Your task to perform on an android device: star an email in the gmail app Image 0: 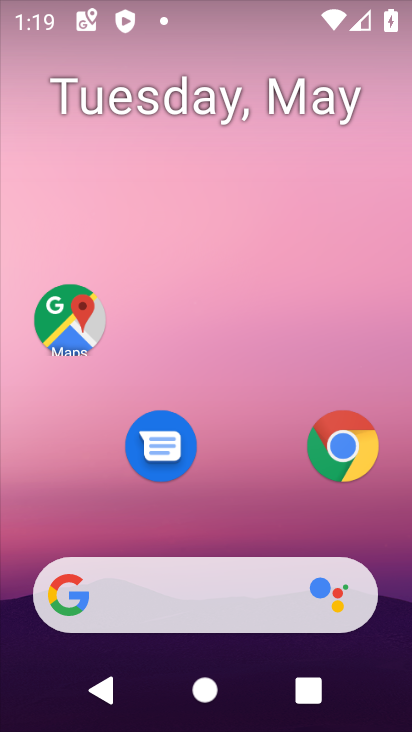
Step 0: drag from (246, 558) to (277, 26)
Your task to perform on an android device: star an email in the gmail app Image 1: 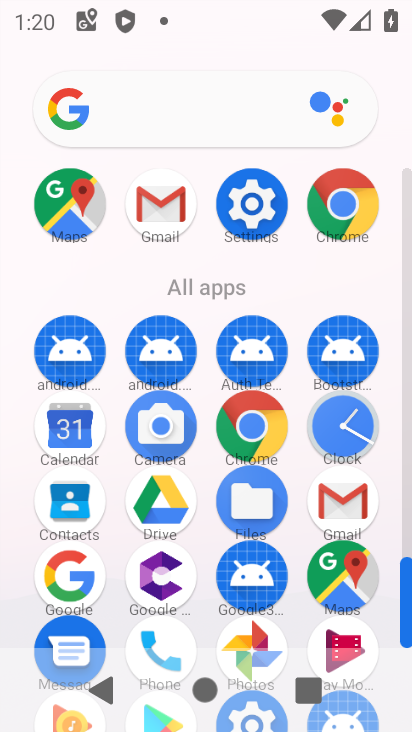
Step 1: click (351, 493)
Your task to perform on an android device: star an email in the gmail app Image 2: 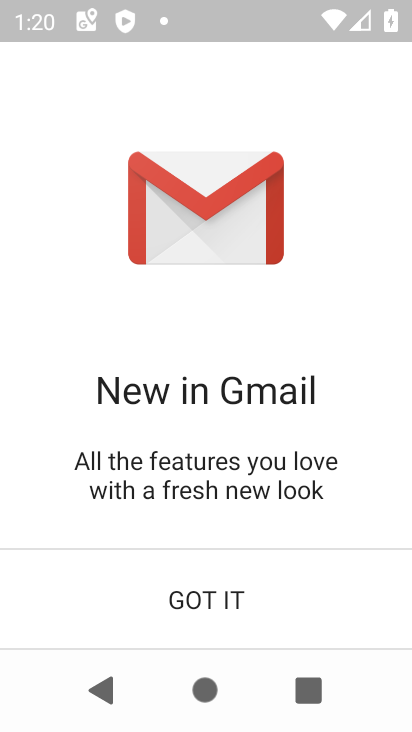
Step 2: click (281, 618)
Your task to perform on an android device: star an email in the gmail app Image 3: 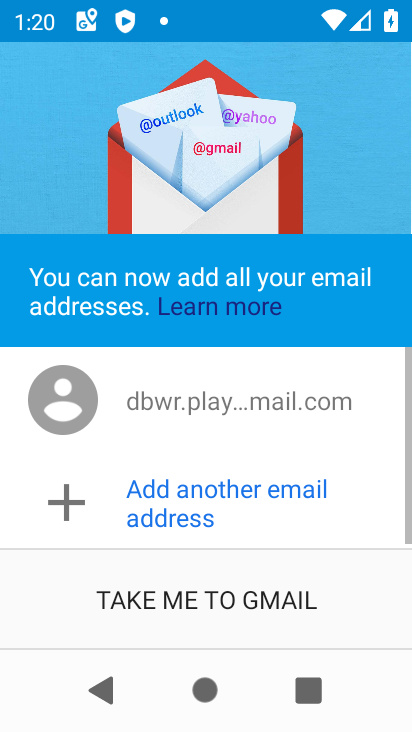
Step 3: click (280, 618)
Your task to perform on an android device: star an email in the gmail app Image 4: 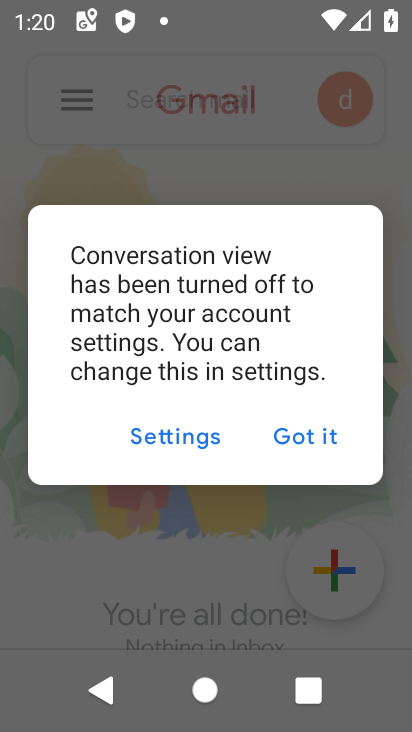
Step 4: click (308, 451)
Your task to perform on an android device: star an email in the gmail app Image 5: 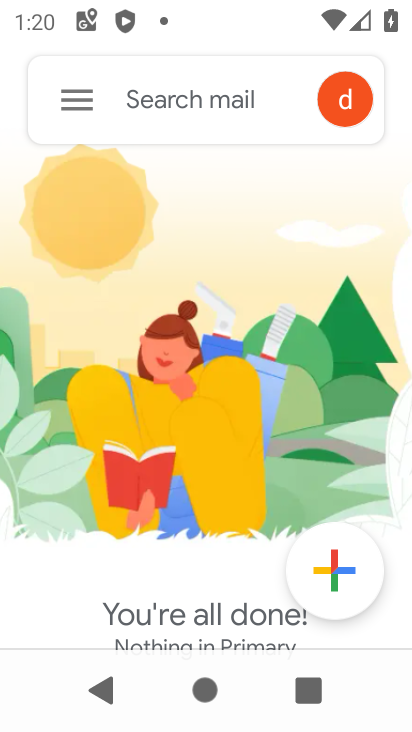
Step 5: click (68, 109)
Your task to perform on an android device: star an email in the gmail app Image 6: 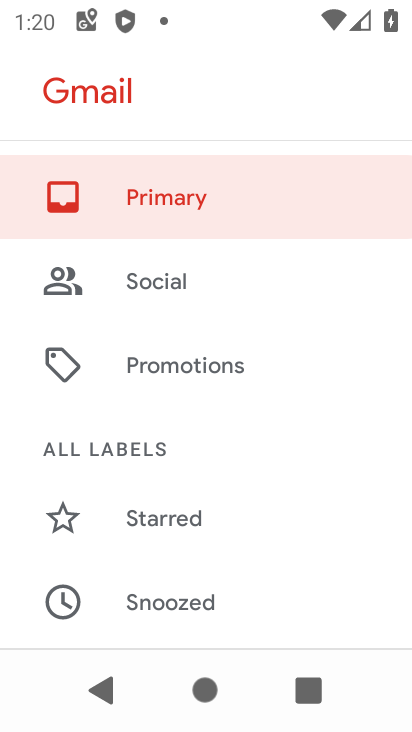
Step 6: click (198, 376)
Your task to perform on an android device: star an email in the gmail app Image 7: 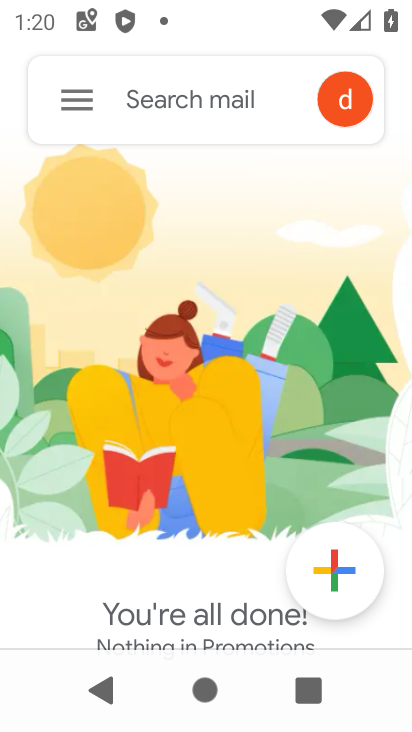
Step 7: task complete